Your task to perform on an android device: change the clock display to analog Image 0: 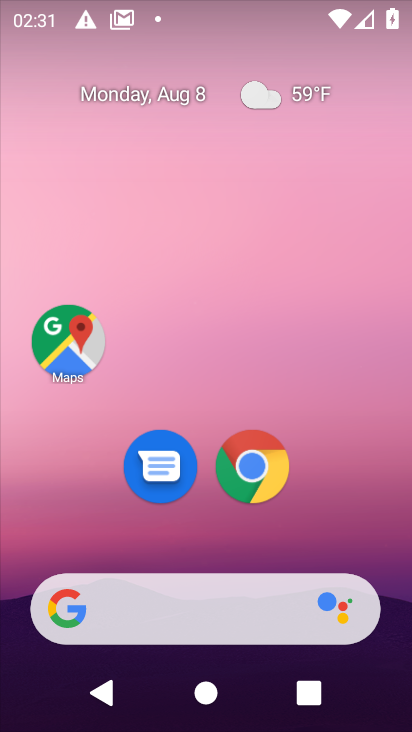
Step 0: drag from (241, 632) to (192, 10)
Your task to perform on an android device: change the clock display to analog Image 1: 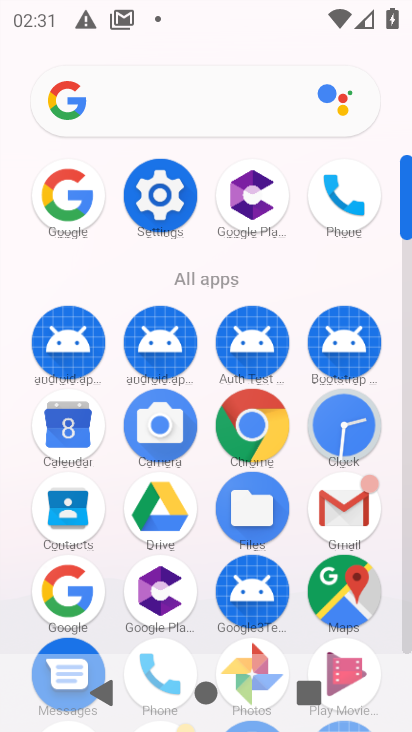
Step 1: click (370, 436)
Your task to perform on an android device: change the clock display to analog Image 2: 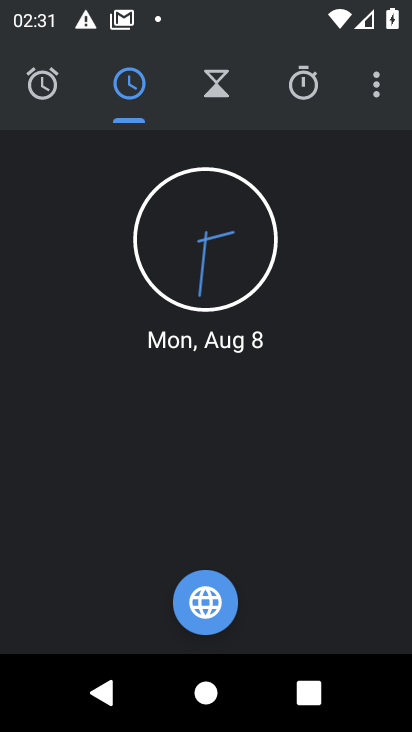
Step 2: click (374, 89)
Your task to perform on an android device: change the clock display to analog Image 3: 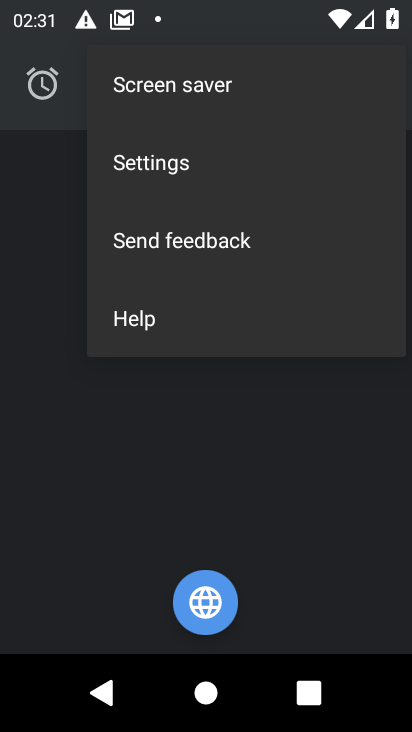
Step 3: click (166, 176)
Your task to perform on an android device: change the clock display to analog Image 4: 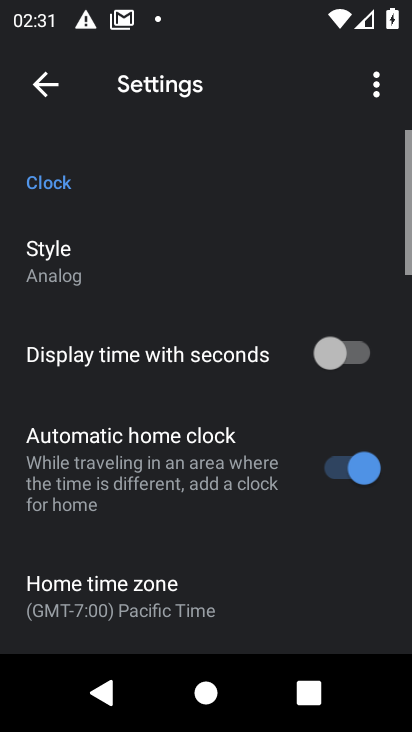
Step 4: click (109, 263)
Your task to perform on an android device: change the clock display to analog Image 5: 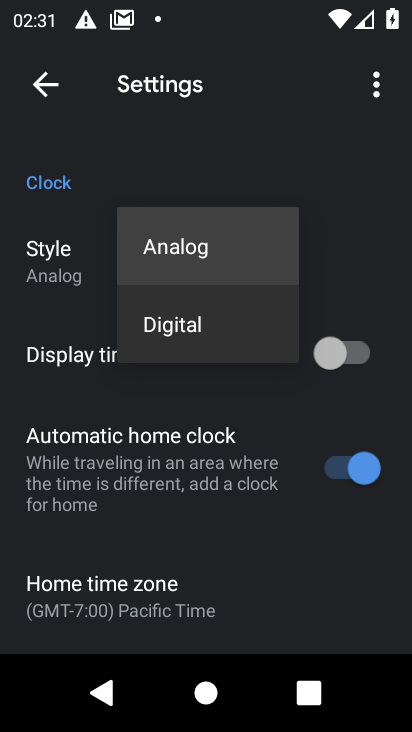
Step 5: click (218, 249)
Your task to perform on an android device: change the clock display to analog Image 6: 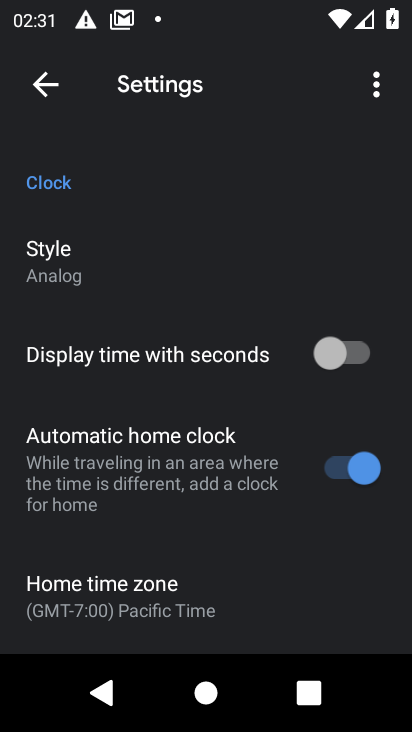
Step 6: task complete